Your task to perform on an android device: turn off javascript in the chrome app Image 0: 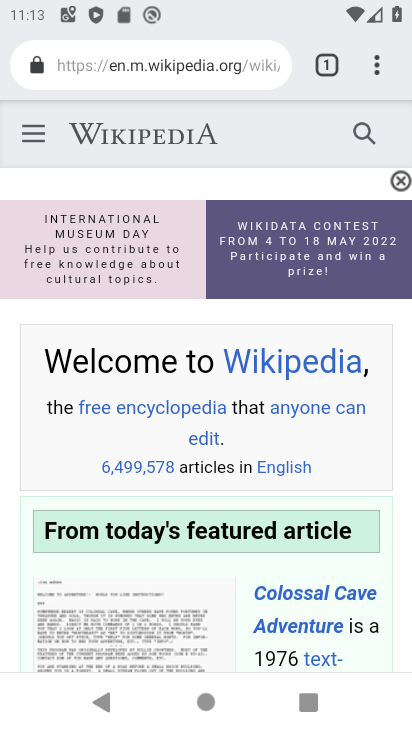
Step 0: press home button
Your task to perform on an android device: turn off javascript in the chrome app Image 1: 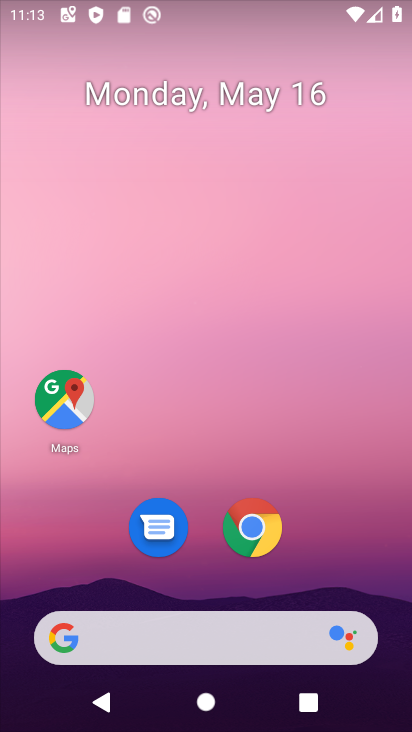
Step 1: drag from (230, 555) to (246, 182)
Your task to perform on an android device: turn off javascript in the chrome app Image 2: 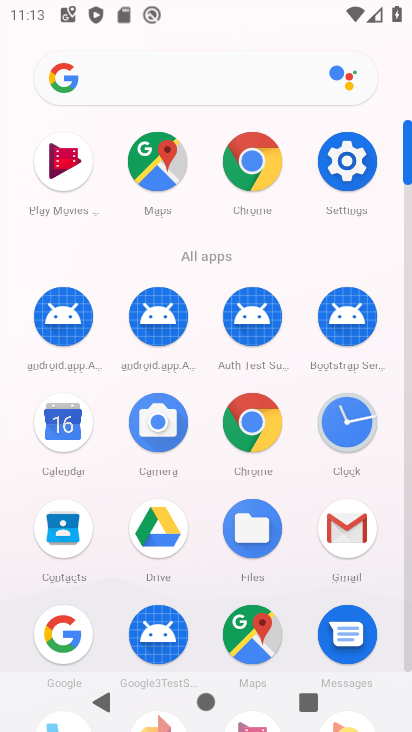
Step 2: click (237, 187)
Your task to perform on an android device: turn off javascript in the chrome app Image 3: 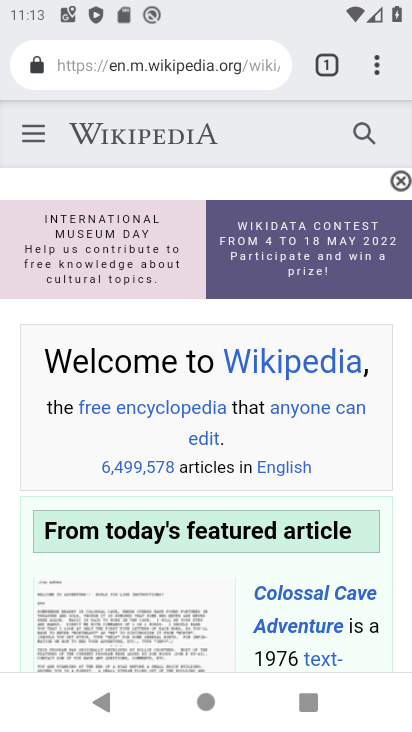
Step 3: click (373, 70)
Your task to perform on an android device: turn off javascript in the chrome app Image 4: 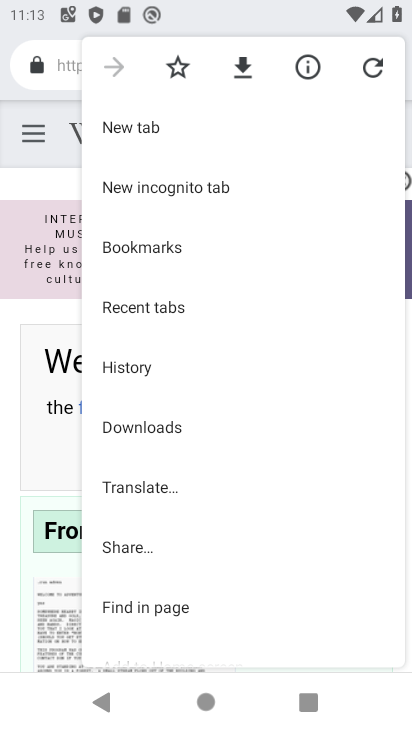
Step 4: drag from (180, 558) to (185, 377)
Your task to perform on an android device: turn off javascript in the chrome app Image 5: 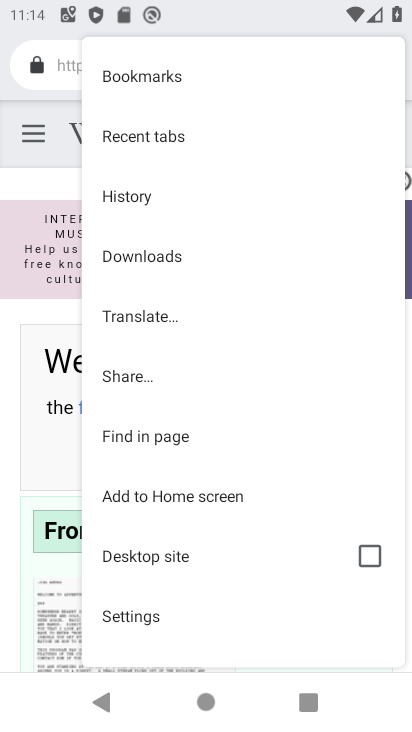
Step 5: click (157, 609)
Your task to perform on an android device: turn off javascript in the chrome app Image 6: 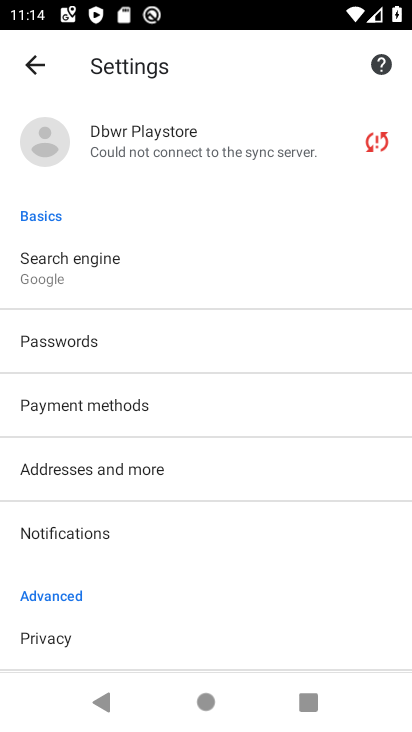
Step 6: drag from (157, 600) to (199, 487)
Your task to perform on an android device: turn off javascript in the chrome app Image 7: 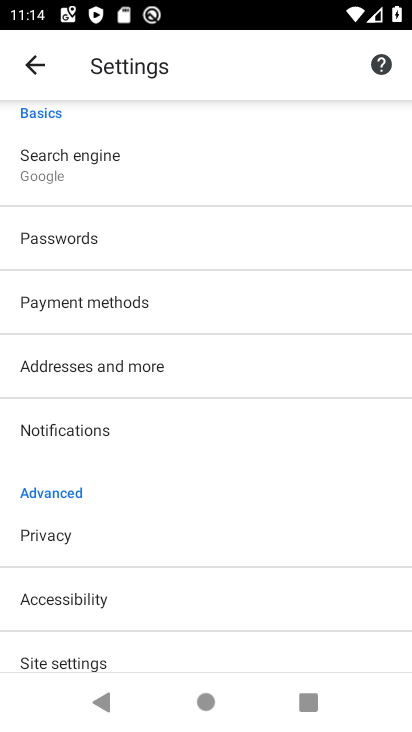
Step 7: drag from (143, 598) to (167, 482)
Your task to perform on an android device: turn off javascript in the chrome app Image 8: 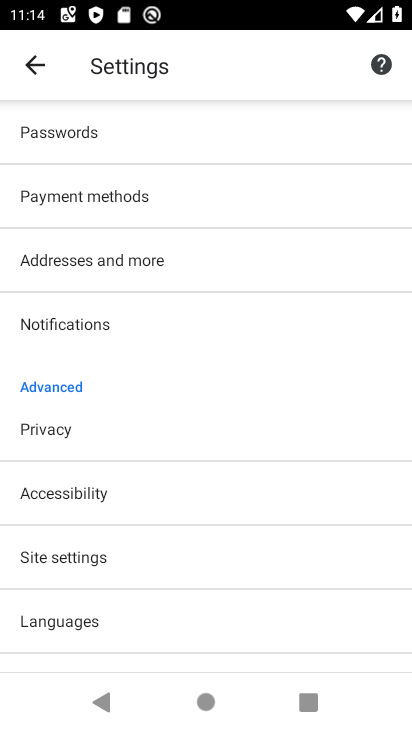
Step 8: click (105, 560)
Your task to perform on an android device: turn off javascript in the chrome app Image 9: 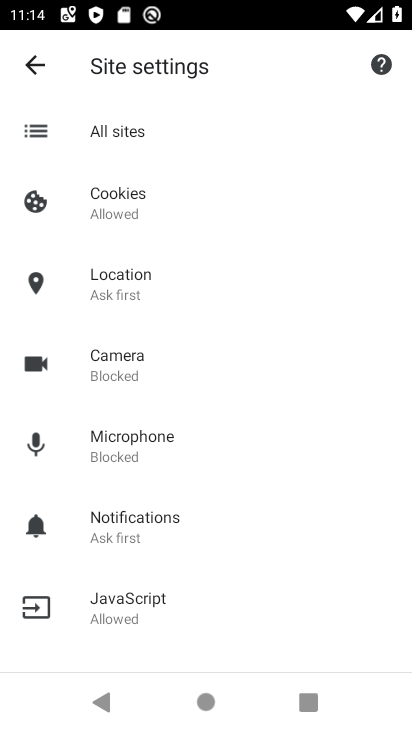
Step 9: click (153, 609)
Your task to perform on an android device: turn off javascript in the chrome app Image 10: 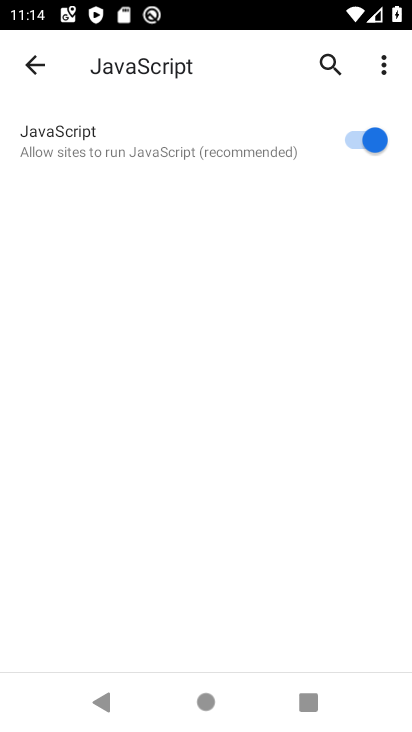
Step 10: click (365, 148)
Your task to perform on an android device: turn off javascript in the chrome app Image 11: 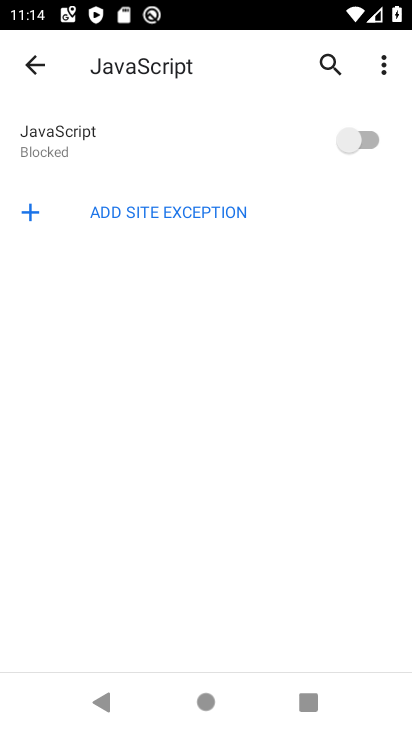
Step 11: task complete